Your task to perform on an android device: toggle translation in the chrome app Image 0: 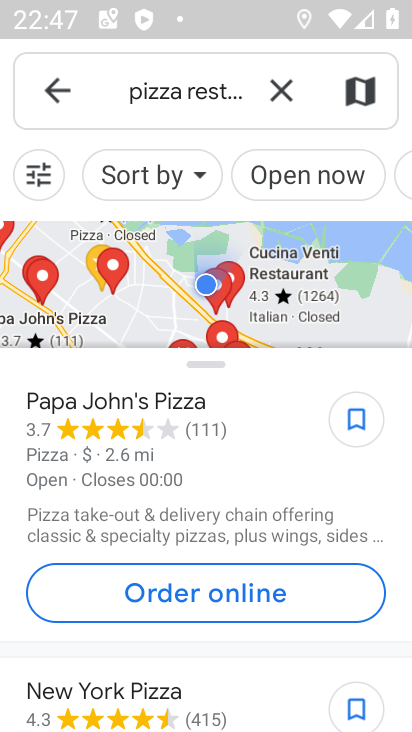
Step 0: press home button
Your task to perform on an android device: toggle translation in the chrome app Image 1: 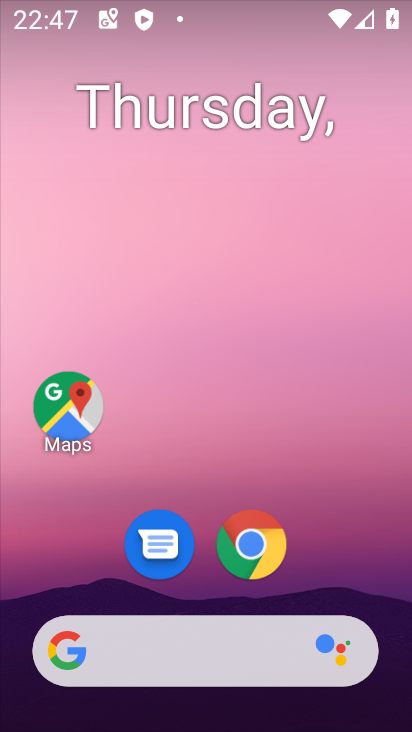
Step 1: drag from (304, 479) to (240, 29)
Your task to perform on an android device: toggle translation in the chrome app Image 2: 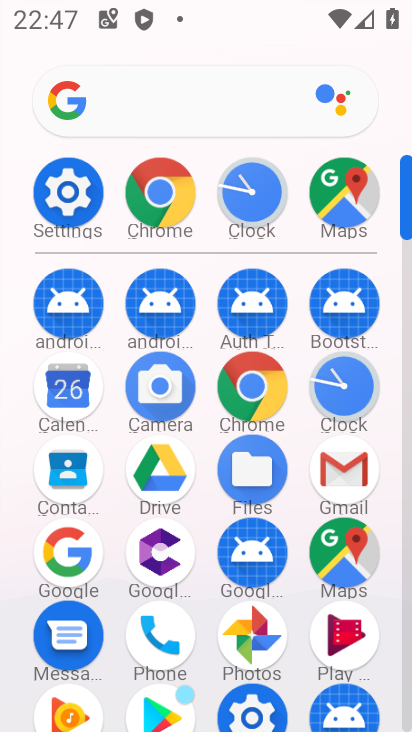
Step 2: click (156, 189)
Your task to perform on an android device: toggle translation in the chrome app Image 3: 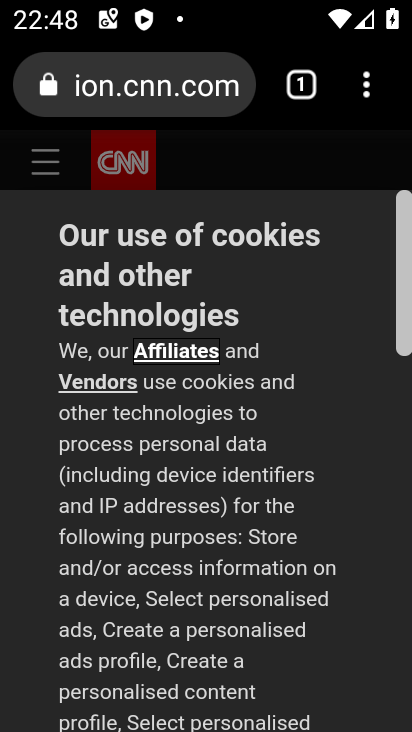
Step 3: drag from (363, 89) to (162, 587)
Your task to perform on an android device: toggle translation in the chrome app Image 4: 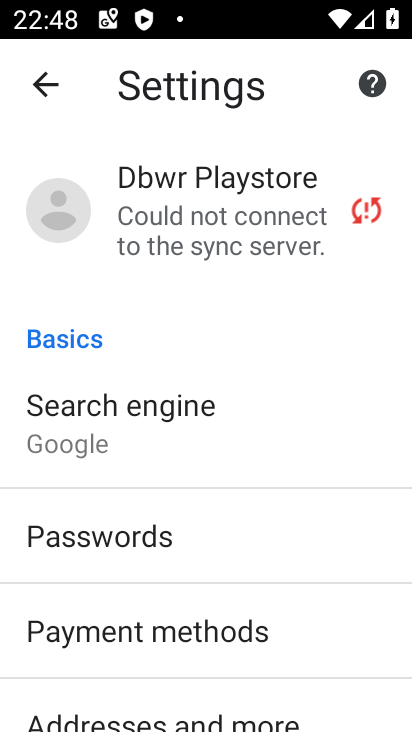
Step 4: drag from (278, 624) to (267, 218)
Your task to perform on an android device: toggle translation in the chrome app Image 5: 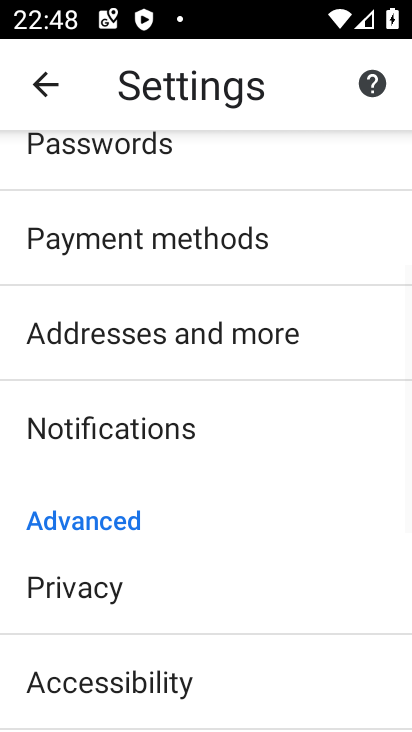
Step 5: drag from (284, 580) to (258, 183)
Your task to perform on an android device: toggle translation in the chrome app Image 6: 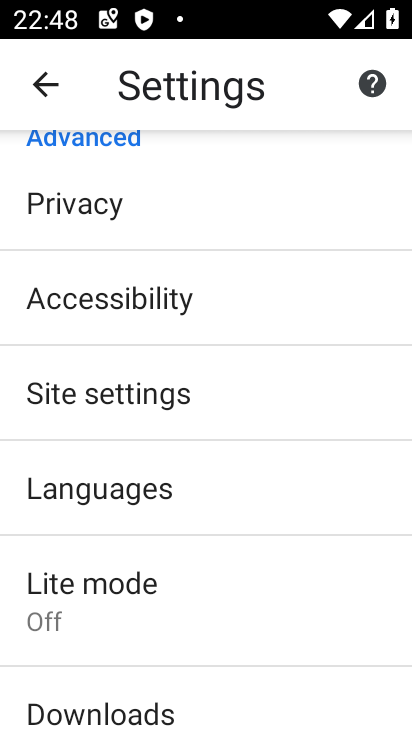
Step 6: click (180, 488)
Your task to perform on an android device: toggle translation in the chrome app Image 7: 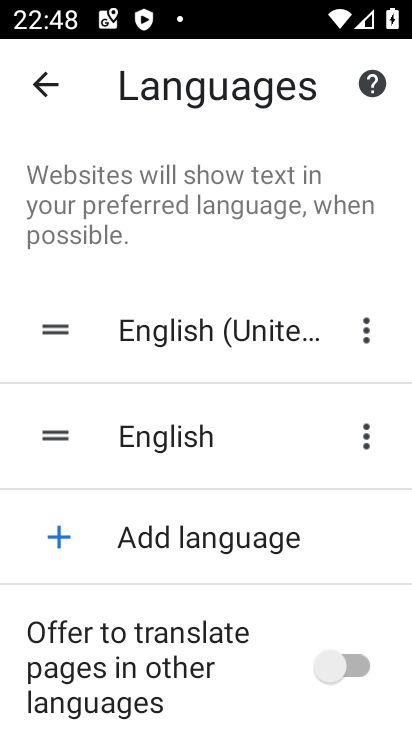
Step 7: click (341, 660)
Your task to perform on an android device: toggle translation in the chrome app Image 8: 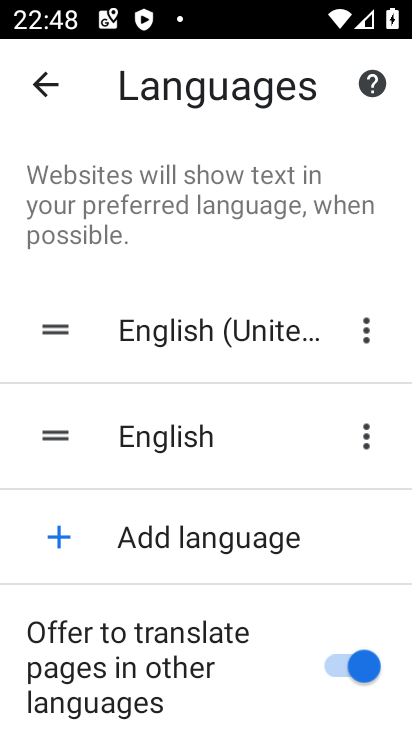
Step 8: task complete